Your task to perform on an android device: Search for seafood restaurants on Google Maps Image 0: 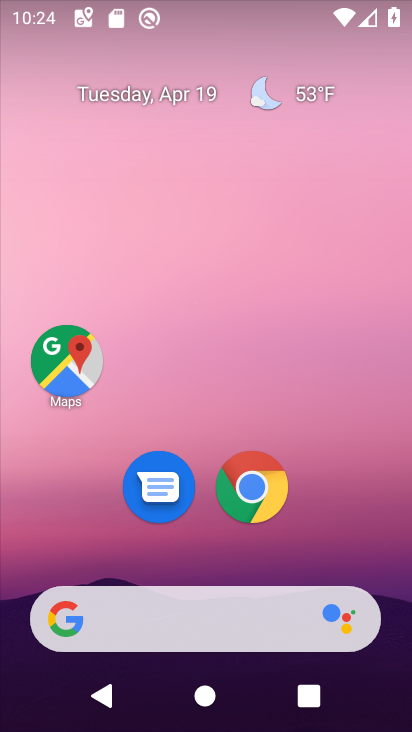
Step 0: drag from (397, 631) to (355, 36)
Your task to perform on an android device: Search for seafood restaurants on Google Maps Image 1: 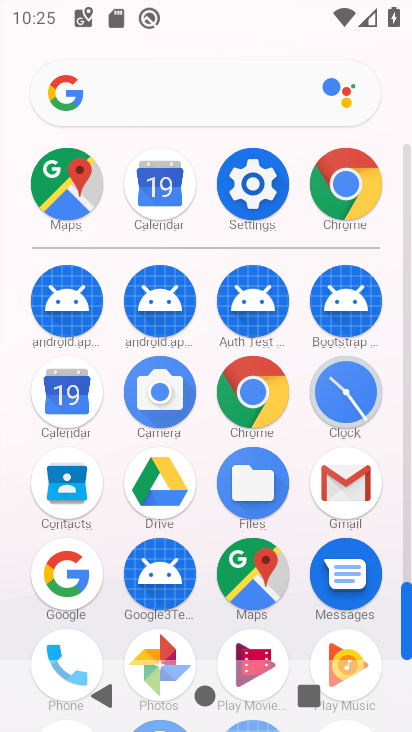
Step 1: drag from (13, 594) to (13, 287)
Your task to perform on an android device: Search for seafood restaurants on Google Maps Image 2: 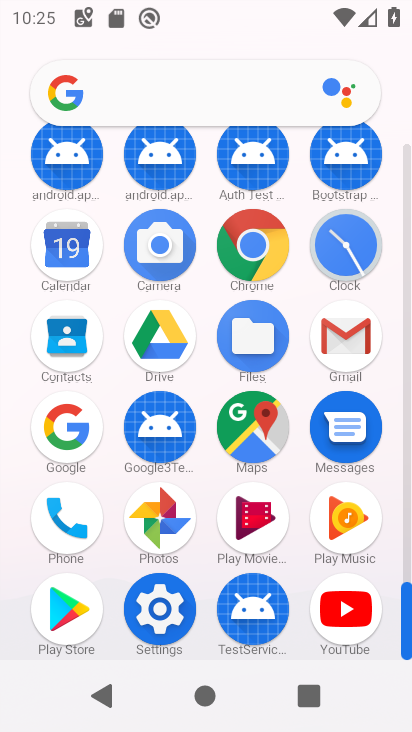
Step 2: drag from (24, 616) to (18, 406)
Your task to perform on an android device: Search for seafood restaurants on Google Maps Image 3: 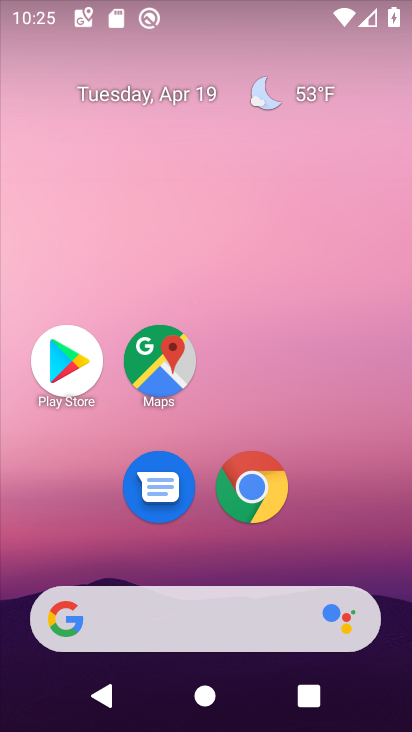
Step 3: drag from (400, 649) to (388, 43)
Your task to perform on an android device: Search for seafood restaurants on Google Maps Image 4: 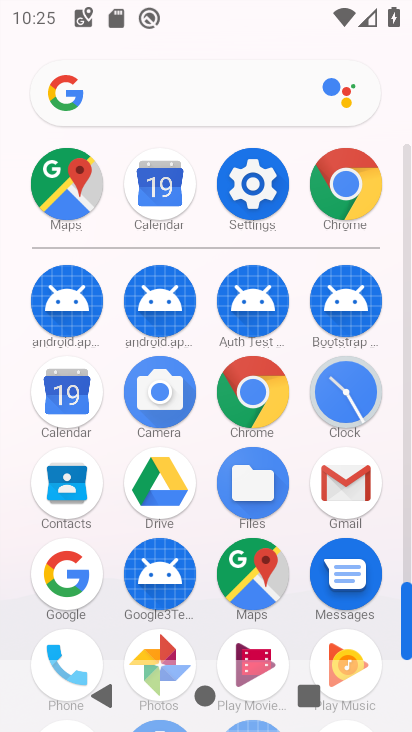
Step 4: drag from (6, 551) to (16, 255)
Your task to perform on an android device: Search for seafood restaurants on Google Maps Image 5: 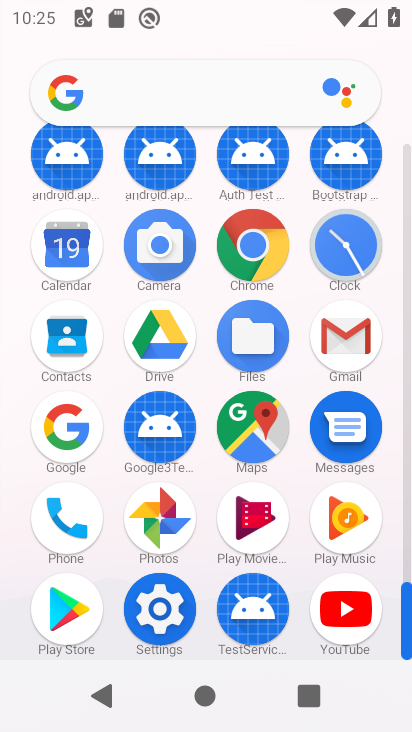
Step 5: drag from (10, 183) to (1, 458)
Your task to perform on an android device: Search for seafood restaurants on Google Maps Image 6: 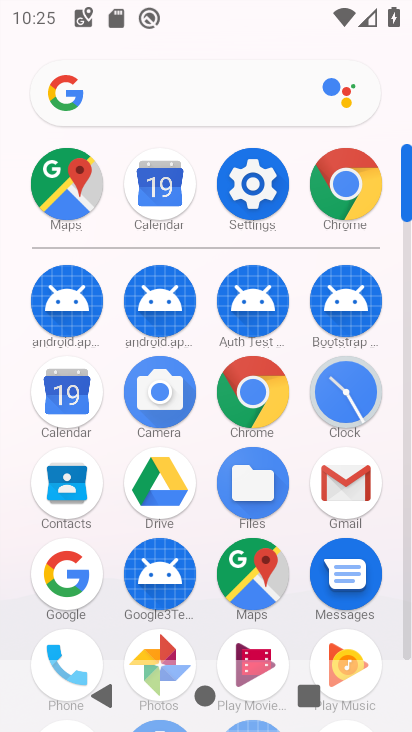
Step 6: drag from (23, 177) to (14, 138)
Your task to perform on an android device: Search for seafood restaurants on Google Maps Image 7: 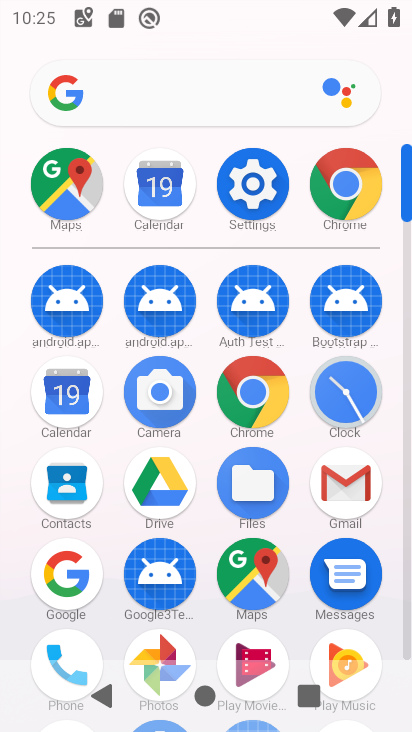
Step 7: click (63, 182)
Your task to perform on an android device: Search for seafood restaurants on Google Maps Image 8: 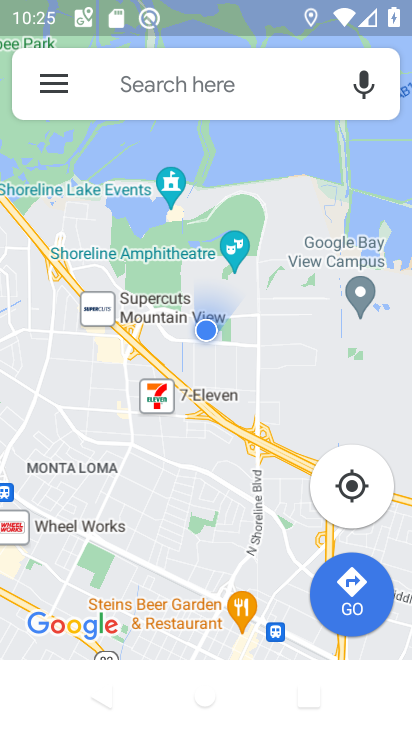
Step 8: click (261, 77)
Your task to perform on an android device: Search for seafood restaurants on Google Maps Image 9: 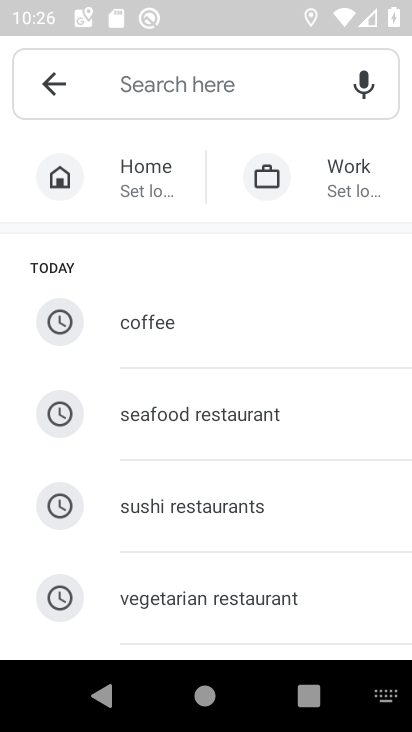
Step 9: click (221, 403)
Your task to perform on an android device: Search for seafood restaurants on Google Maps Image 10: 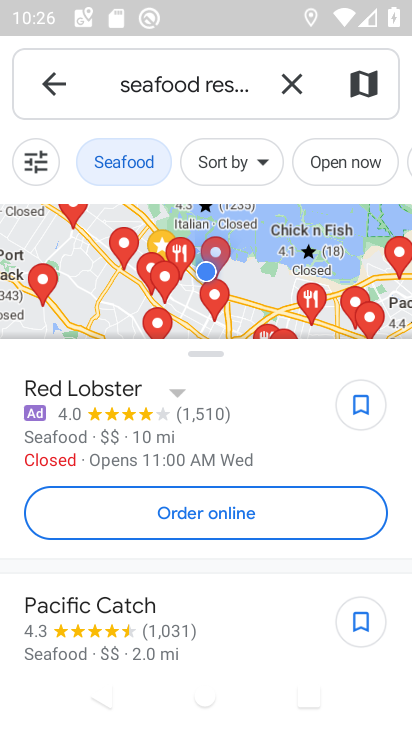
Step 10: task complete